Your task to perform on an android device: Open sound settings Image 0: 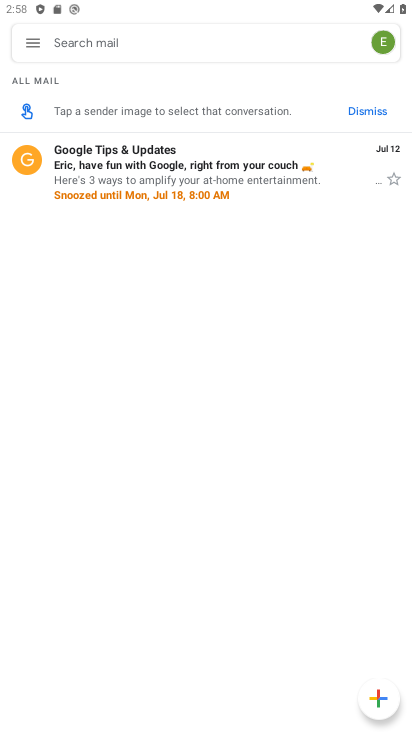
Step 0: press home button
Your task to perform on an android device: Open sound settings Image 1: 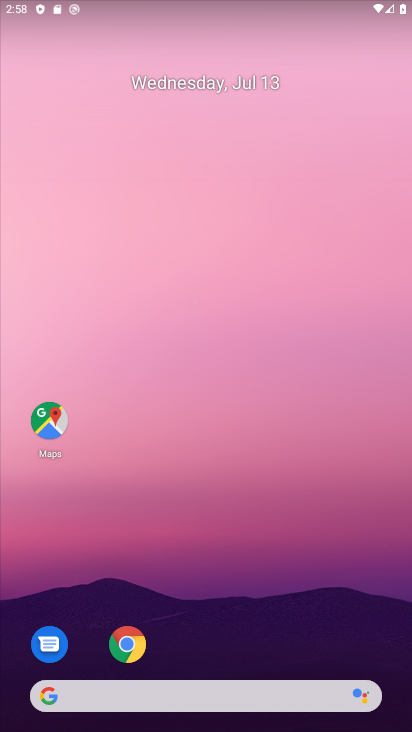
Step 1: drag from (195, 686) to (285, 156)
Your task to perform on an android device: Open sound settings Image 2: 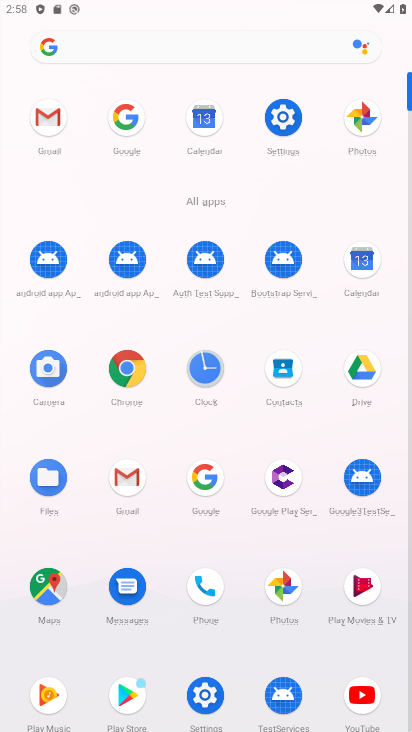
Step 2: click (284, 115)
Your task to perform on an android device: Open sound settings Image 3: 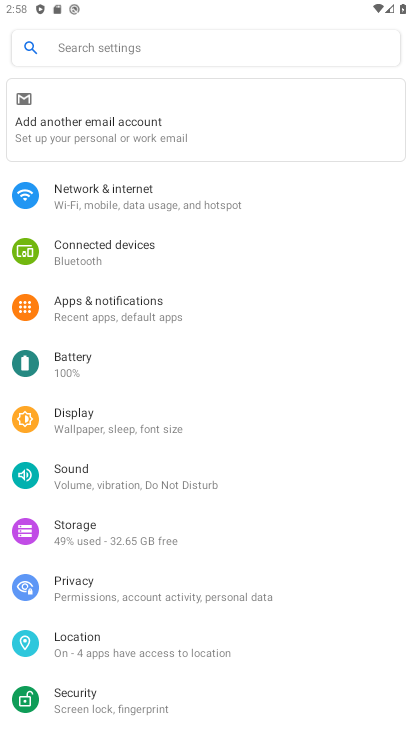
Step 3: drag from (141, 439) to (196, 268)
Your task to perform on an android device: Open sound settings Image 4: 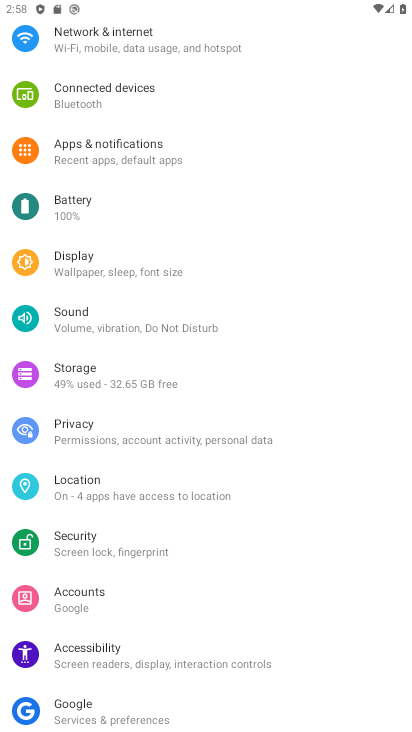
Step 4: click (126, 323)
Your task to perform on an android device: Open sound settings Image 5: 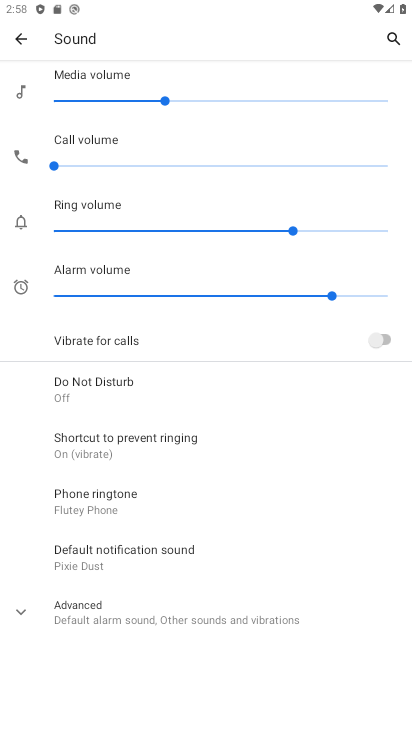
Step 5: task complete